Your task to perform on an android device: Go to CNN.com Image 0: 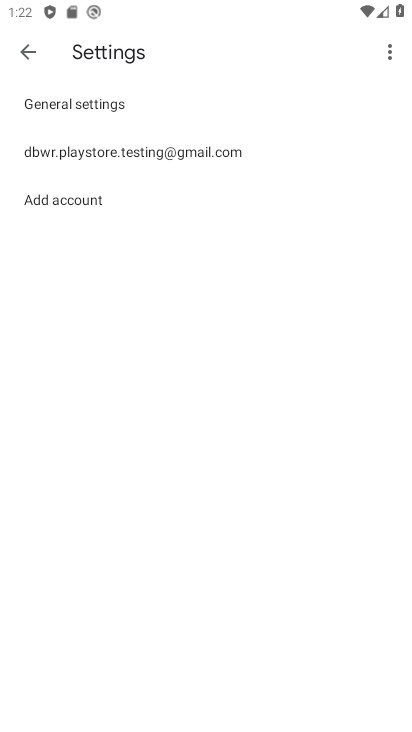
Step 0: press back button
Your task to perform on an android device: Go to CNN.com Image 1: 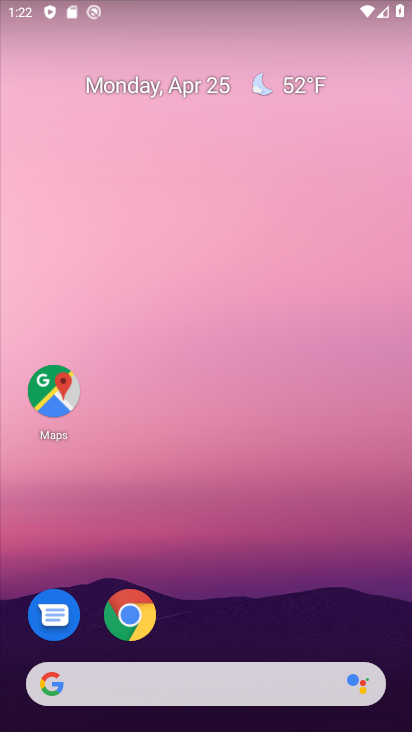
Step 1: click (131, 615)
Your task to perform on an android device: Go to CNN.com Image 2: 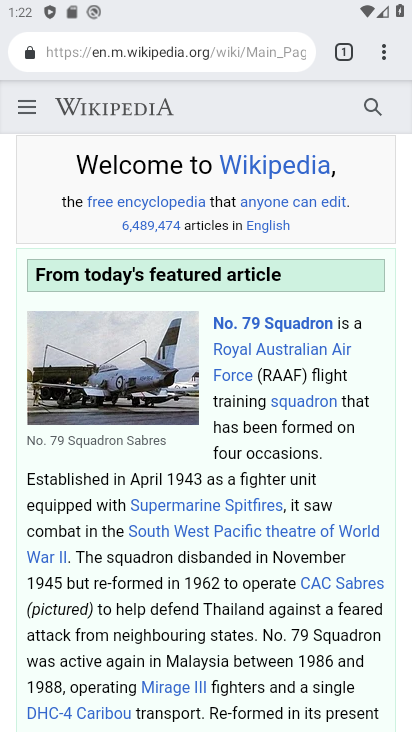
Step 2: click (277, 56)
Your task to perform on an android device: Go to CNN.com Image 3: 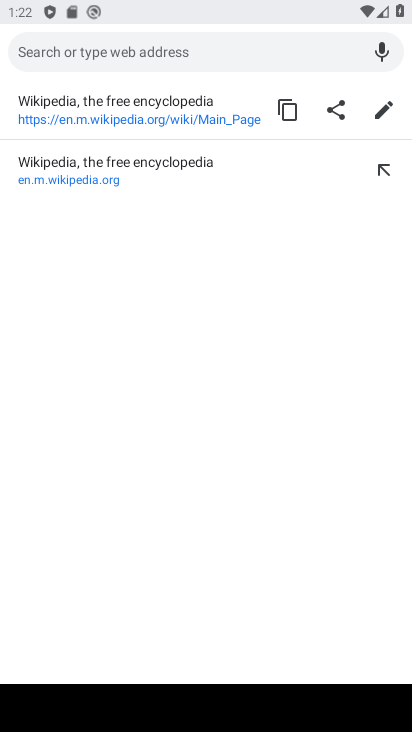
Step 3: type "CNN.com"
Your task to perform on an android device: Go to CNN.com Image 4: 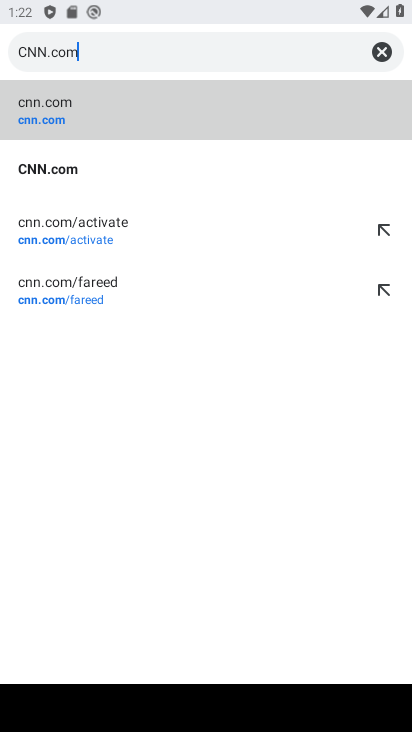
Step 4: click (65, 165)
Your task to perform on an android device: Go to CNN.com Image 5: 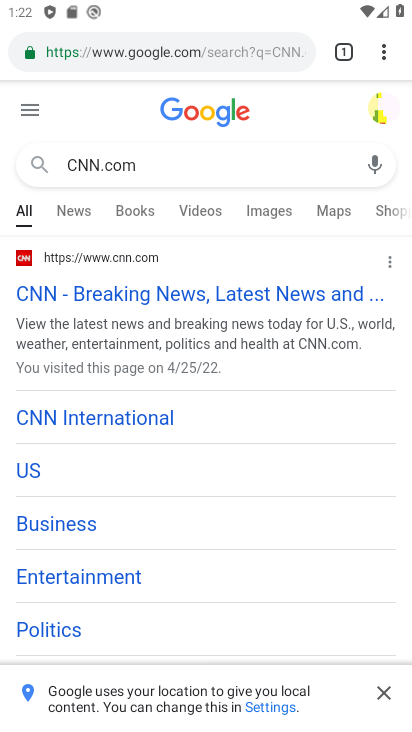
Step 5: click (139, 290)
Your task to perform on an android device: Go to CNN.com Image 6: 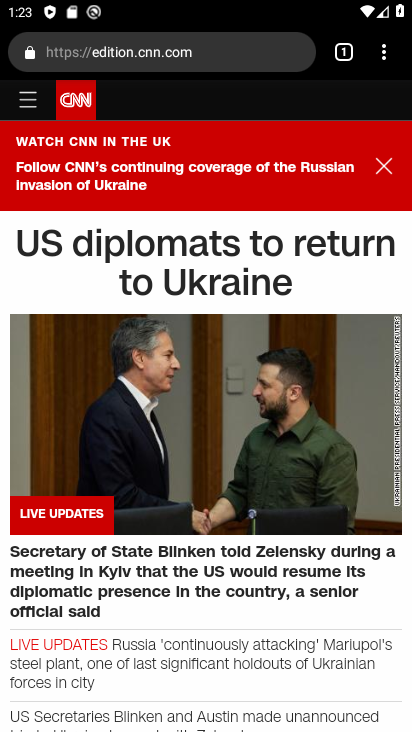
Step 6: task complete